Your task to perform on an android device: turn off airplane mode Image 0: 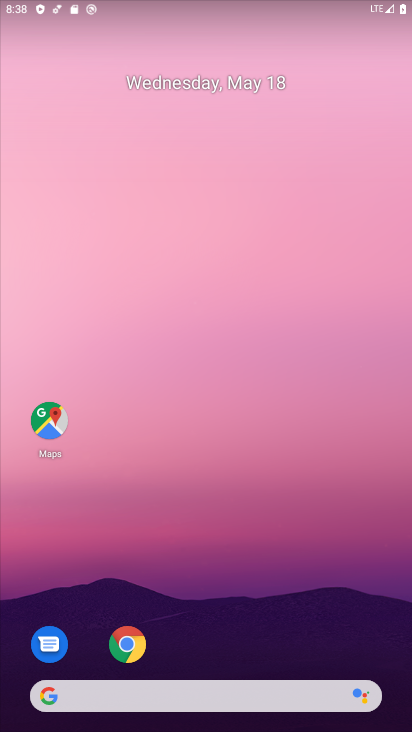
Step 0: drag from (220, 622) to (264, 71)
Your task to perform on an android device: turn off airplane mode Image 1: 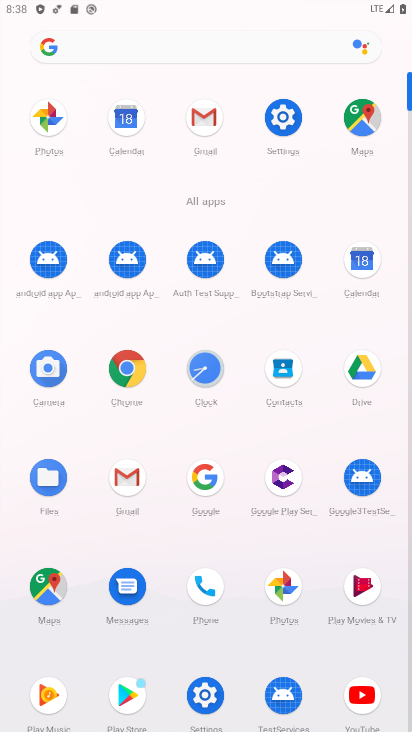
Step 1: click (281, 126)
Your task to perform on an android device: turn off airplane mode Image 2: 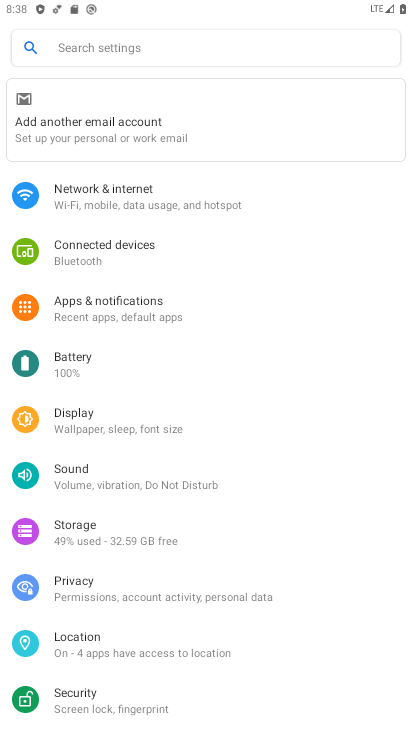
Step 2: click (206, 191)
Your task to perform on an android device: turn off airplane mode Image 3: 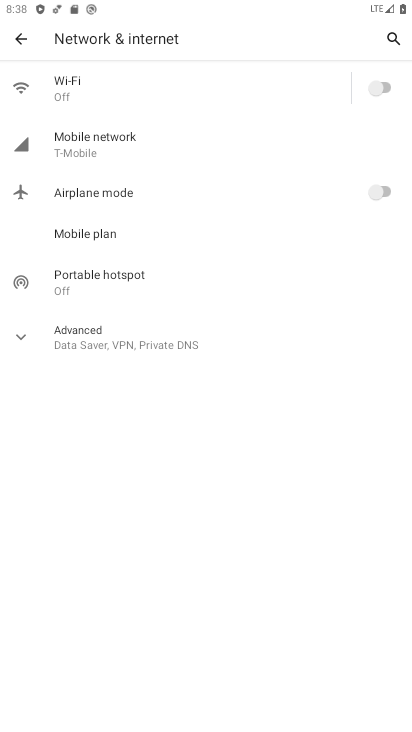
Step 3: task complete